Your task to perform on an android device: Go to ESPN.com Image 0: 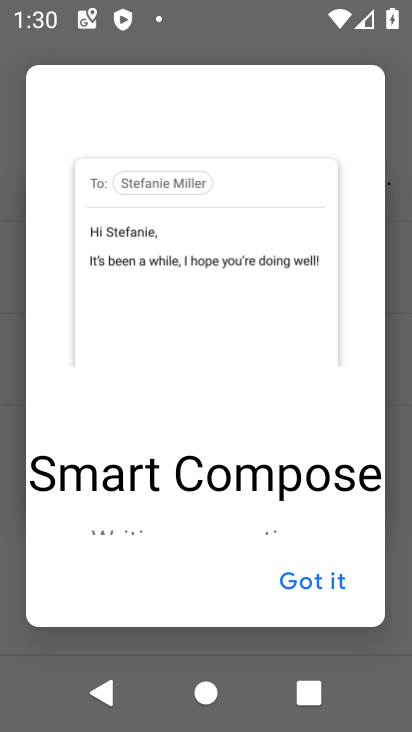
Step 0: press home button
Your task to perform on an android device: Go to ESPN.com Image 1: 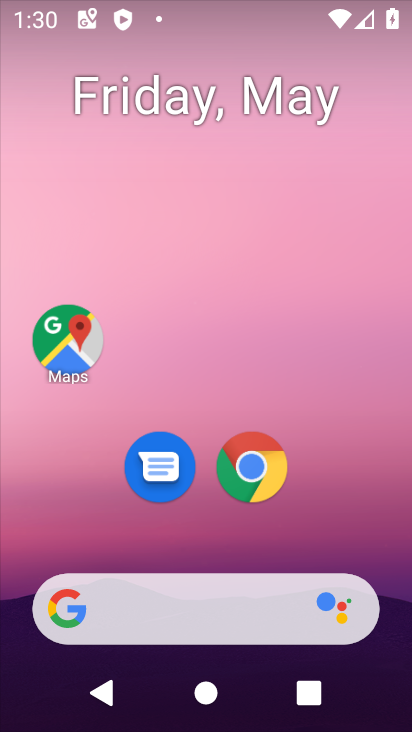
Step 1: click (238, 485)
Your task to perform on an android device: Go to ESPN.com Image 2: 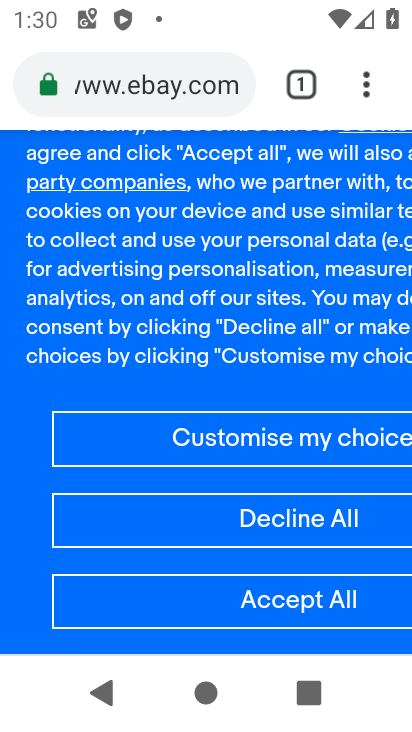
Step 2: click (159, 95)
Your task to perform on an android device: Go to ESPN.com Image 3: 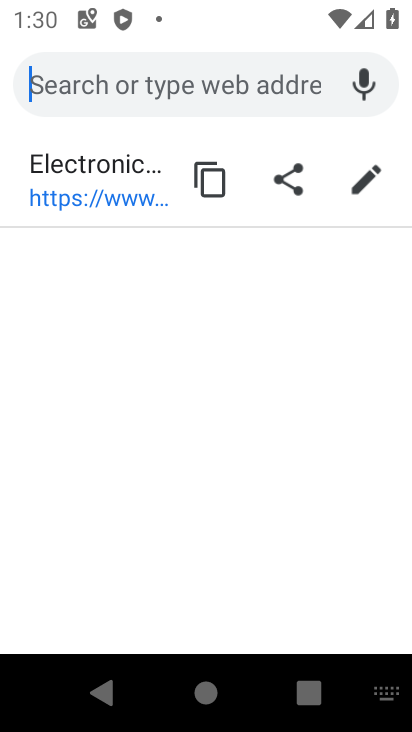
Step 3: type "espn"
Your task to perform on an android device: Go to ESPN.com Image 4: 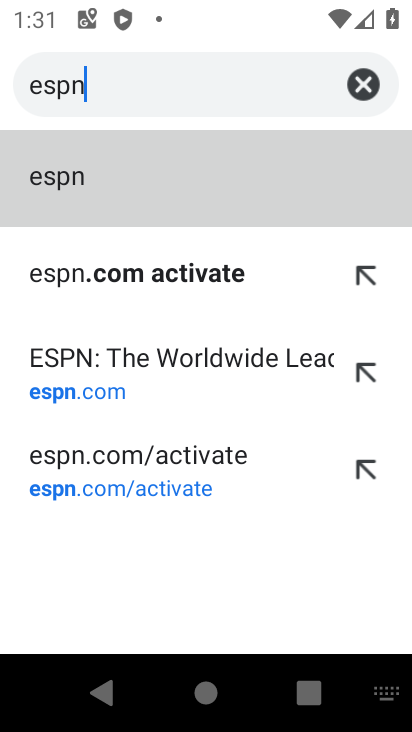
Step 4: click (81, 196)
Your task to perform on an android device: Go to ESPN.com Image 5: 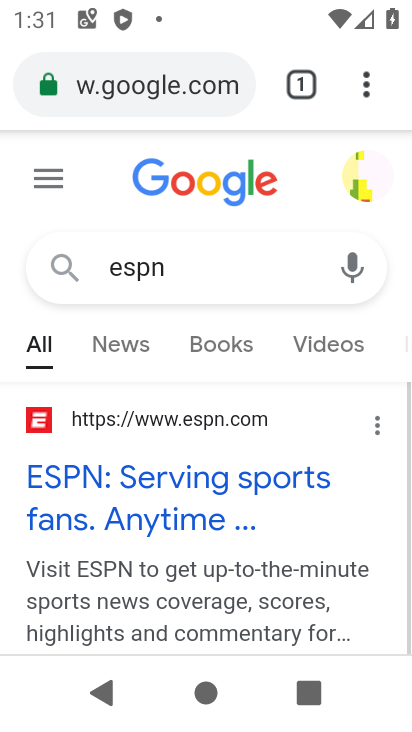
Step 5: click (136, 481)
Your task to perform on an android device: Go to ESPN.com Image 6: 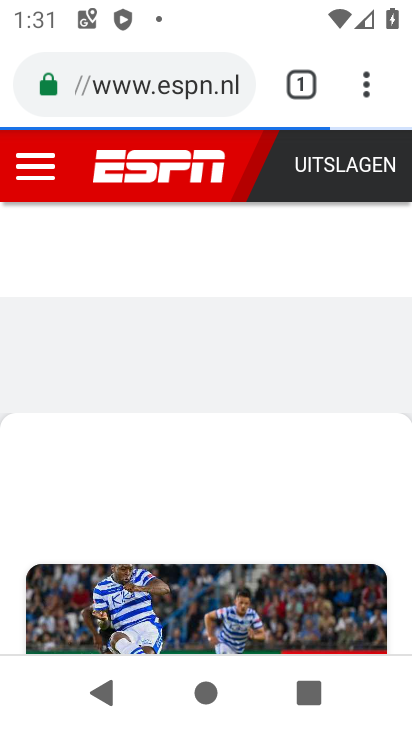
Step 6: task complete